Your task to perform on an android device: open app "ColorNote Notepad Notes" Image 0: 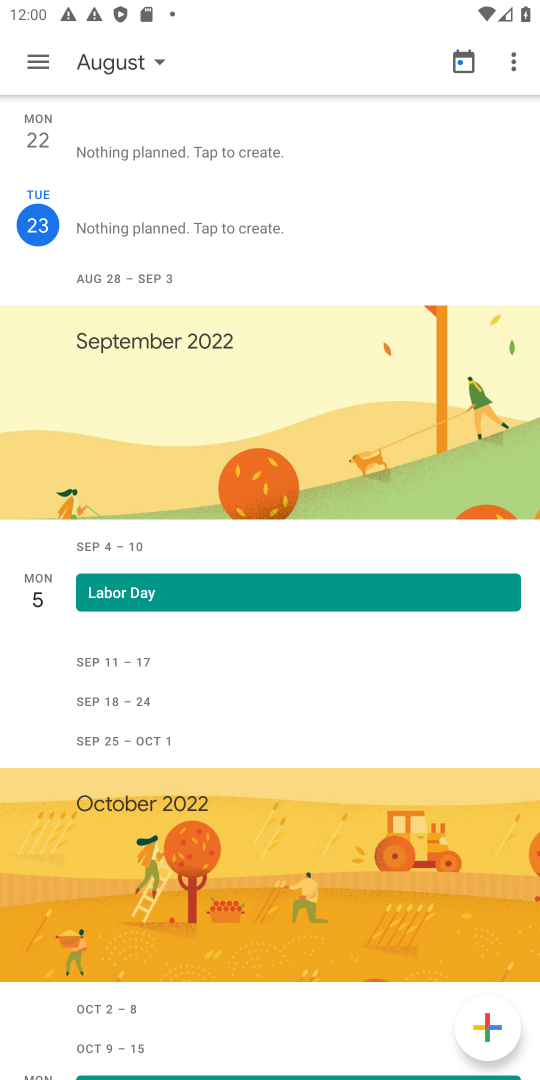
Step 0: press home button
Your task to perform on an android device: open app "ColorNote Notepad Notes" Image 1: 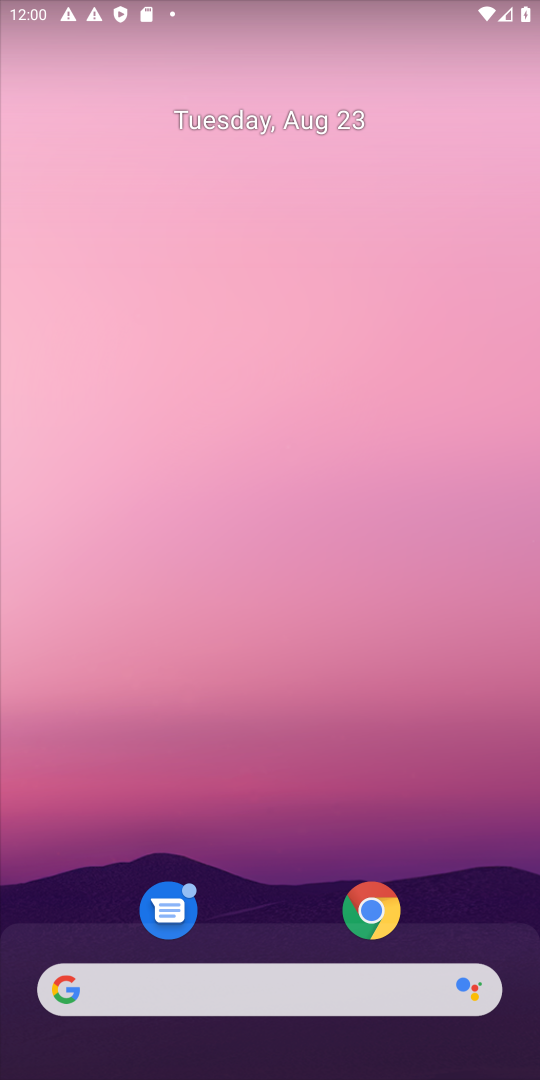
Step 1: drag from (242, 619) to (403, 18)
Your task to perform on an android device: open app "ColorNote Notepad Notes" Image 2: 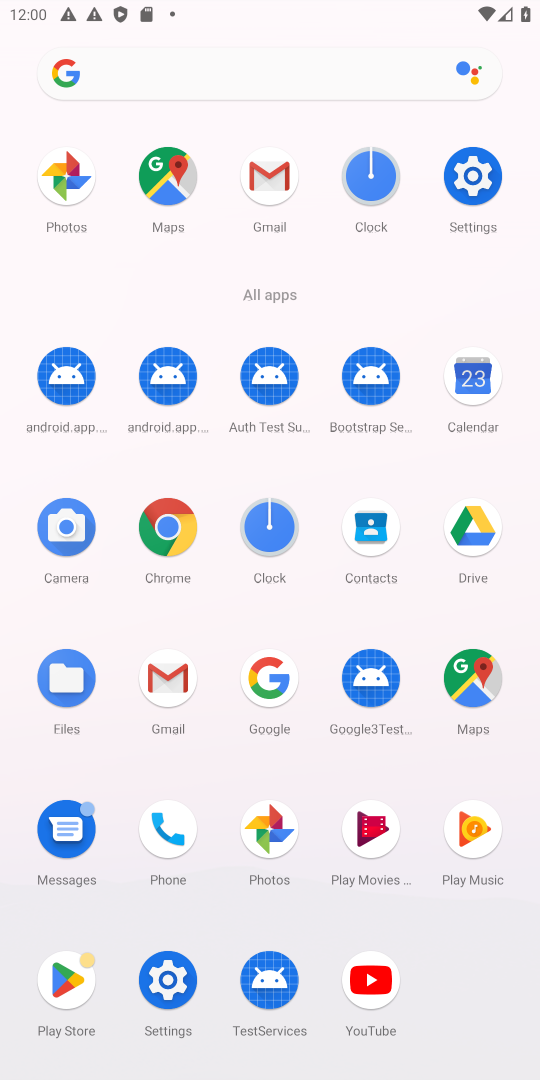
Step 2: click (50, 984)
Your task to perform on an android device: open app "ColorNote Notepad Notes" Image 3: 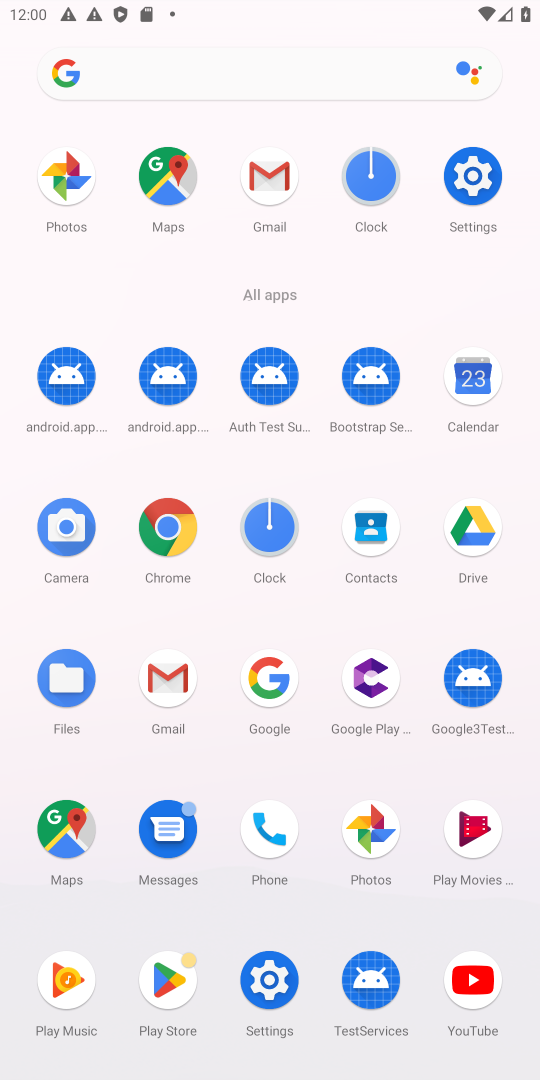
Step 3: click (175, 973)
Your task to perform on an android device: open app "ColorNote Notepad Notes" Image 4: 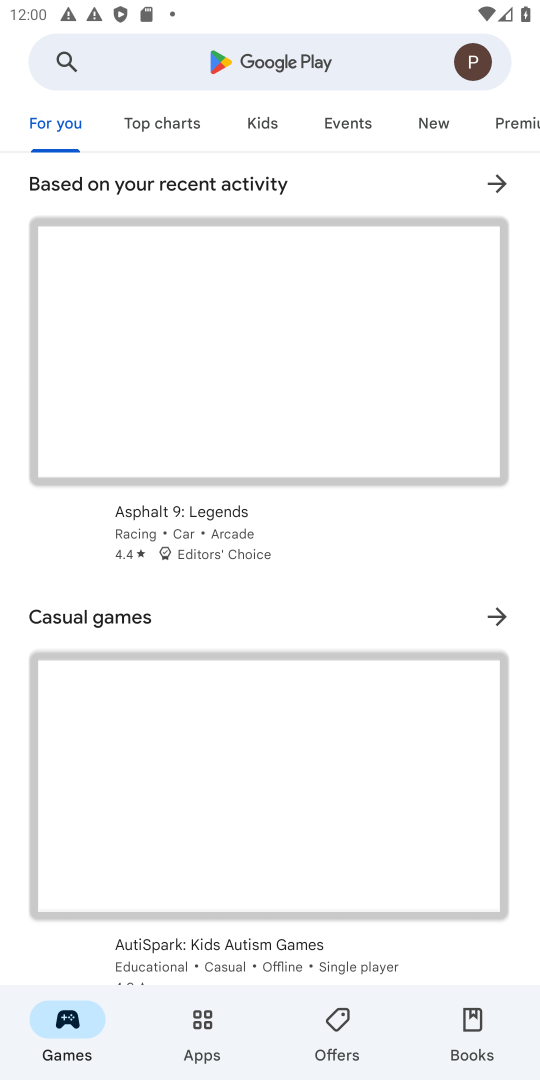
Step 4: click (327, 62)
Your task to perform on an android device: open app "ColorNote Notepad Notes" Image 5: 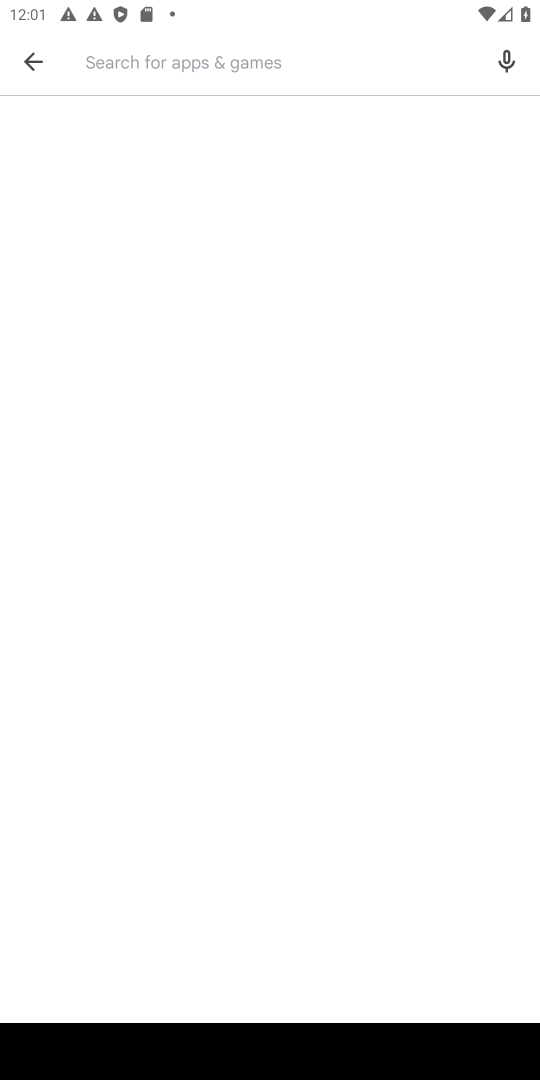
Step 5: type "ColorNote Notepad Notes"
Your task to perform on an android device: open app "ColorNote Notepad Notes" Image 6: 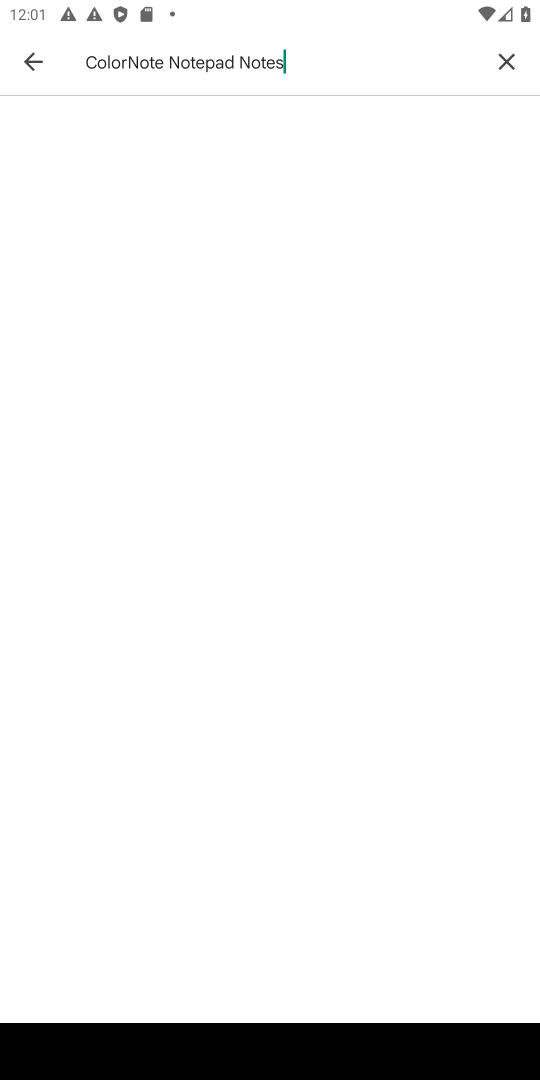
Step 6: press enter
Your task to perform on an android device: open app "ColorNote Notepad Notes" Image 7: 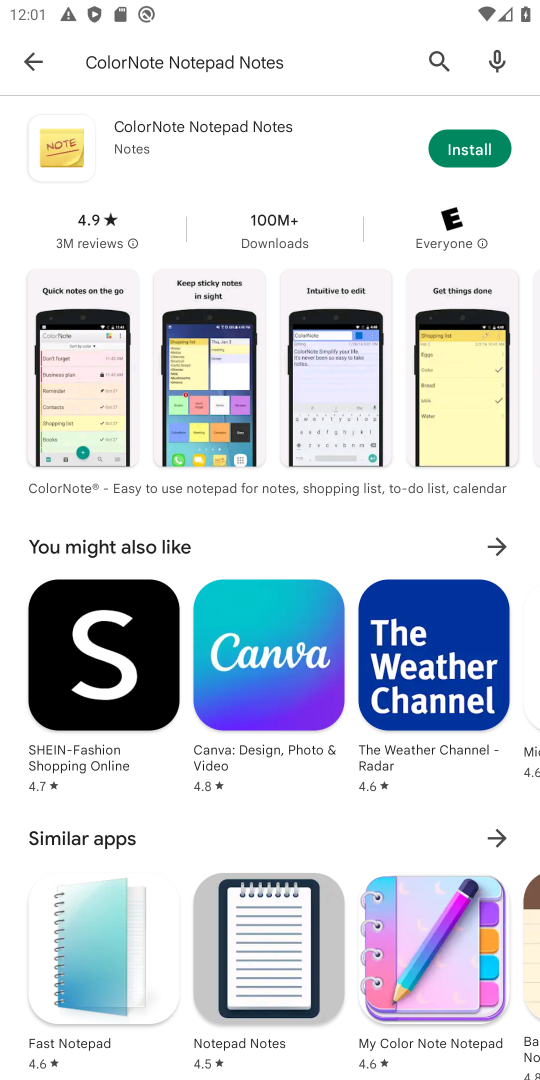
Step 7: click (475, 149)
Your task to perform on an android device: open app "ColorNote Notepad Notes" Image 8: 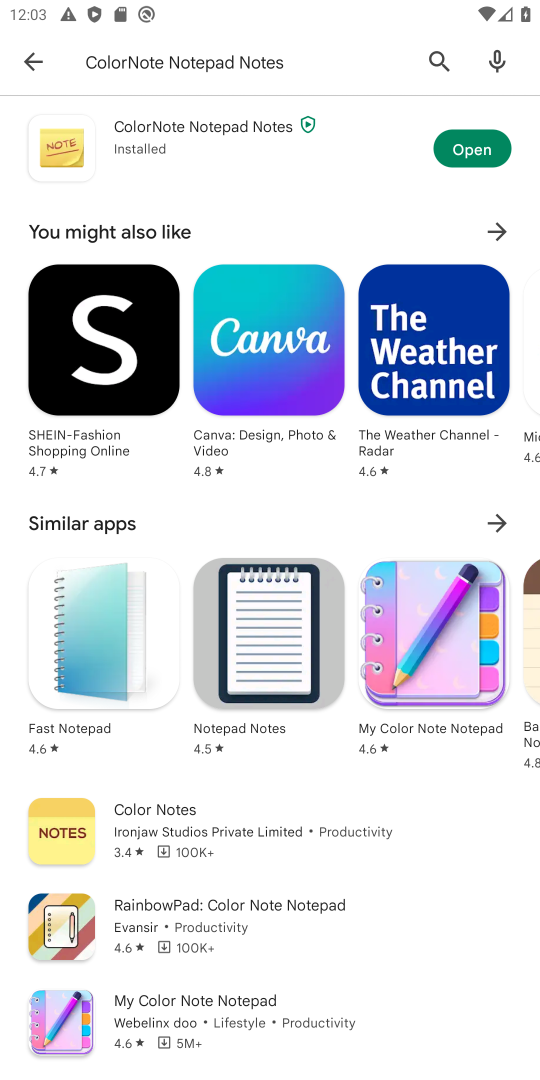
Step 8: task complete